Your task to perform on an android device: turn off location history Image 0: 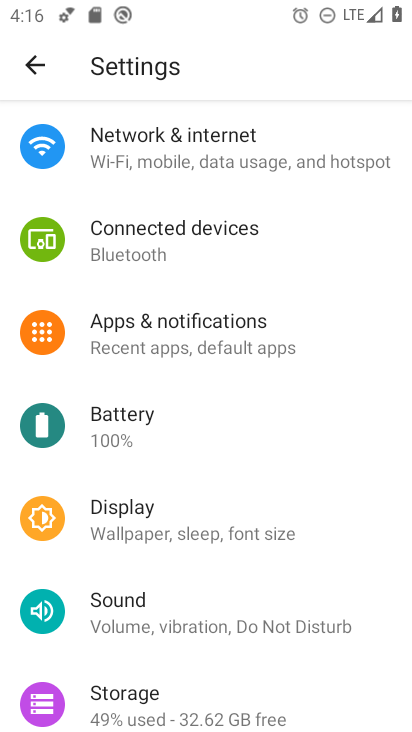
Step 0: drag from (324, 665) to (308, 312)
Your task to perform on an android device: turn off location history Image 1: 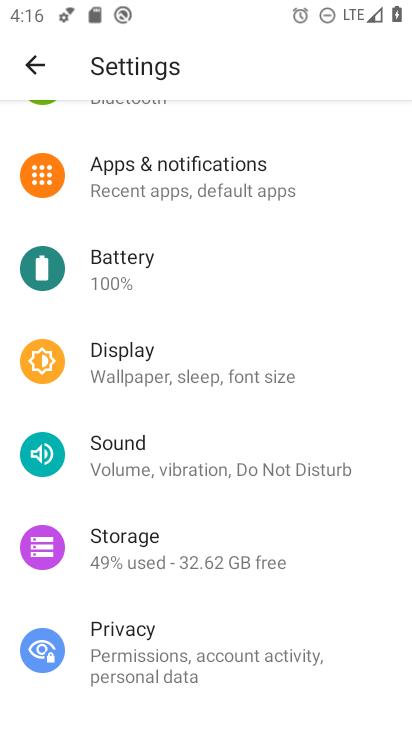
Step 1: drag from (322, 657) to (324, 402)
Your task to perform on an android device: turn off location history Image 2: 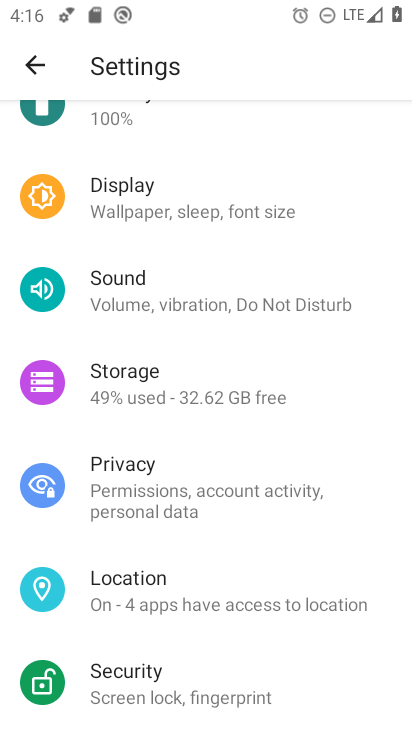
Step 2: click (100, 582)
Your task to perform on an android device: turn off location history Image 3: 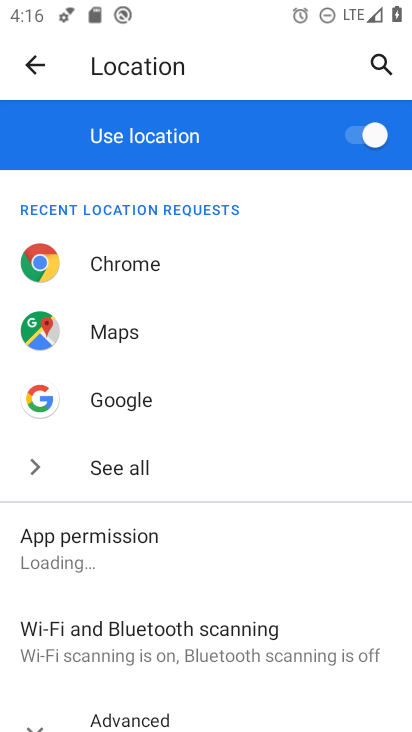
Step 3: drag from (316, 565) to (313, 276)
Your task to perform on an android device: turn off location history Image 4: 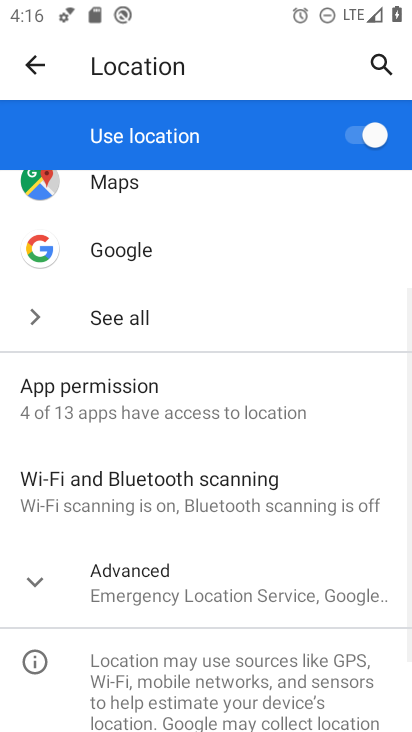
Step 4: drag from (340, 648) to (332, 384)
Your task to perform on an android device: turn off location history Image 5: 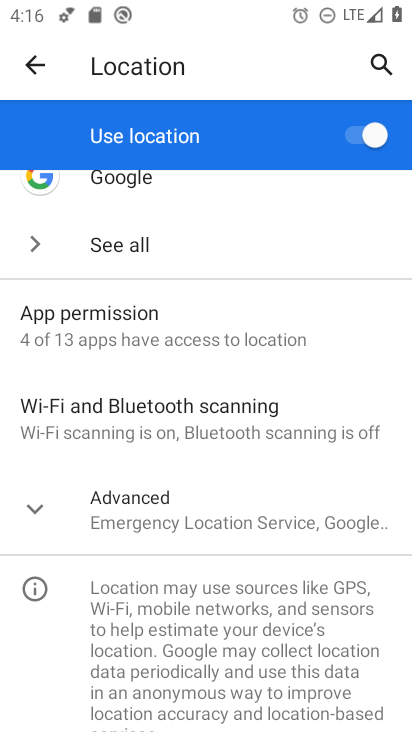
Step 5: drag from (334, 646) to (321, 456)
Your task to perform on an android device: turn off location history Image 6: 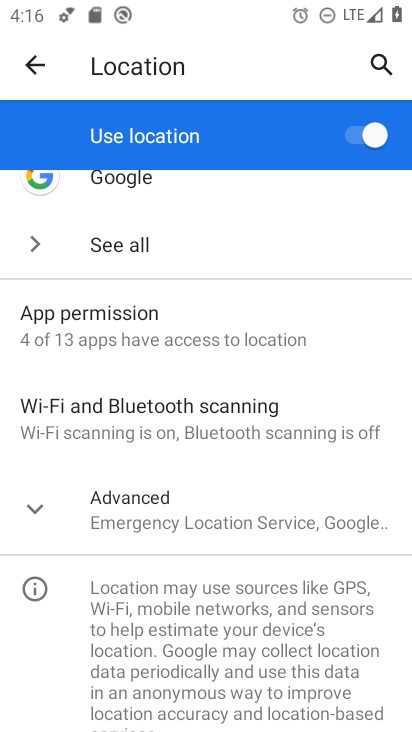
Step 6: click (34, 503)
Your task to perform on an android device: turn off location history Image 7: 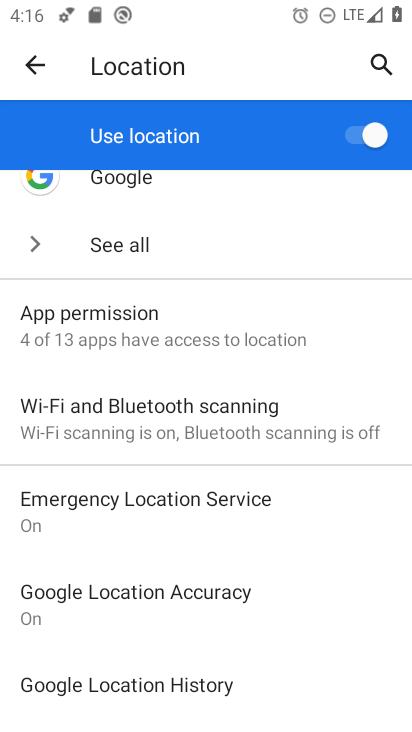
Step 7: drag from (313, 682) to (294, 496)
Your task to perform on an android device: turn off location history Image 8: 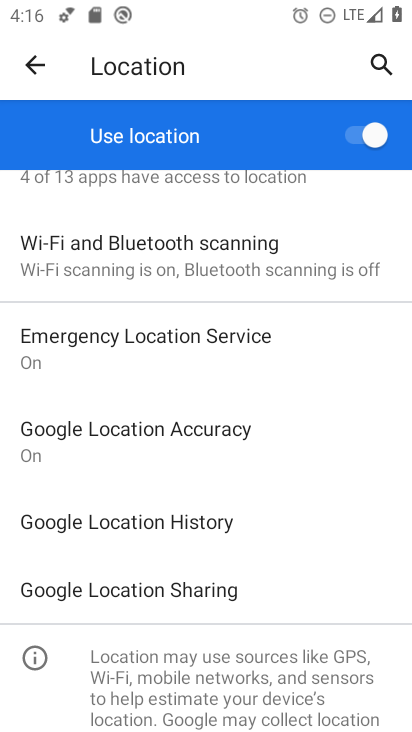
Step 8: click (138, 526)
Your task to perform on an android device: turn off location history Image 9: 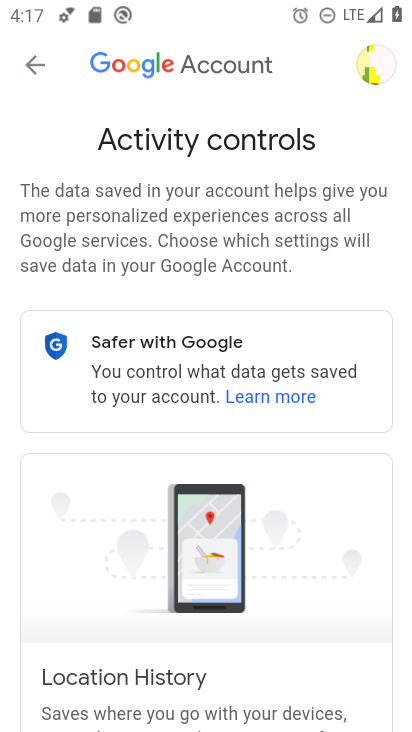
Step 9: drag from (334, 564) to (305, 239)
Your task to perform on an android device: turn off location history Image 10: 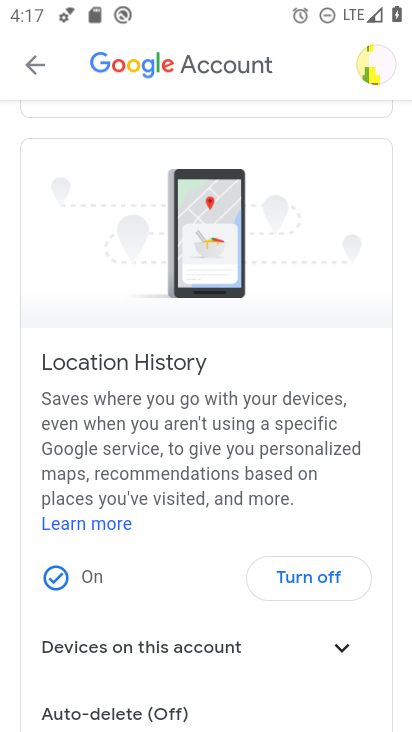
Step 10: click (354, 570)
Your task to perform on an android device: turn off location history Image 11: 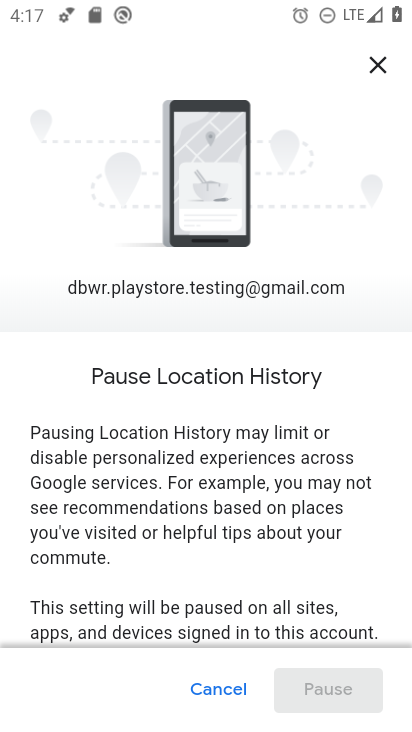
Step 11: drag from (237, 623) to (238, 285)
Your task to perform on an android device: turn off location history Image 12: 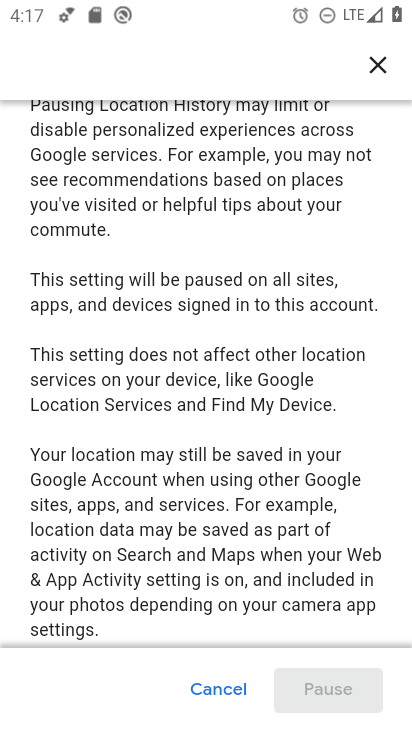
Step 12: drag from (255, 555) to (285, 158)
Your task to perform on an android device: turn off location history Image 13: 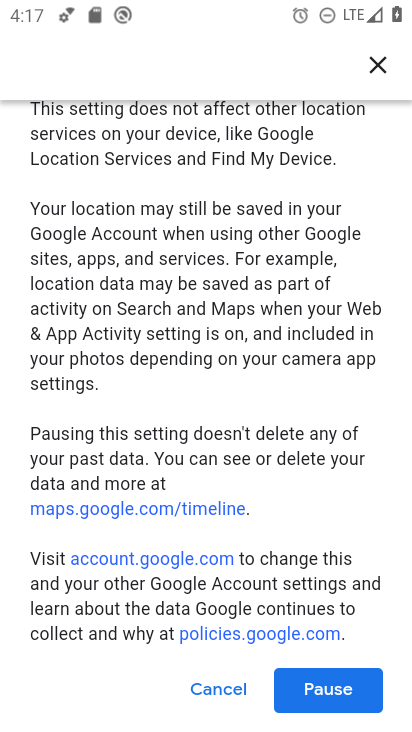
Step 13: drag from (279, 577) to (287, 270)
Your task to perform on an android device: turn off location history Image 14: 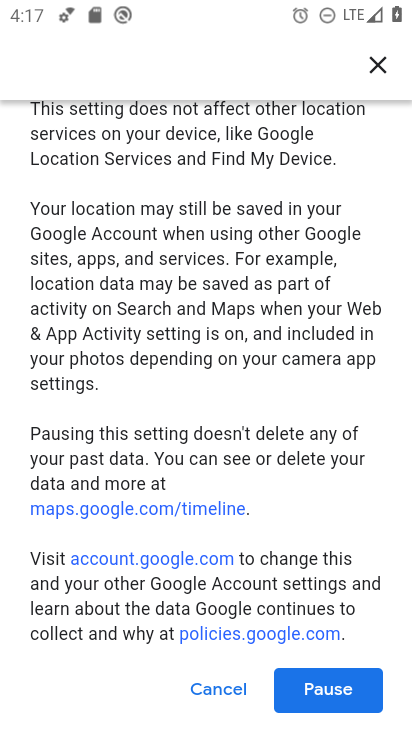
Step 14: drag from (272, 603) to (304, 294)
Your task to perform on an android device: turn off location history Image 15: 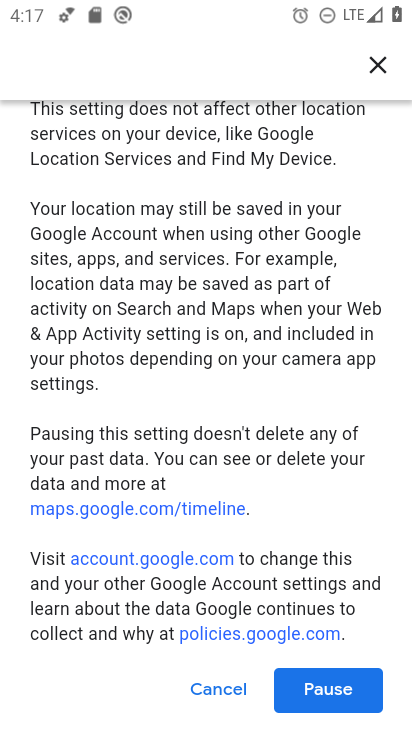
Step 15: click (334, 688)
Your task to perform on an android device: turn off location history Image 16: 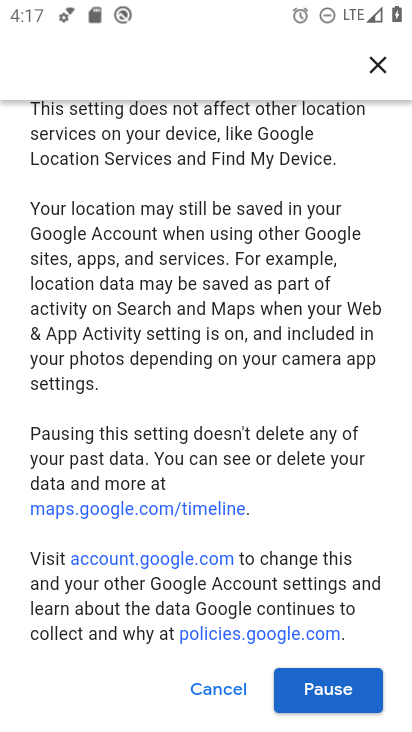
Step 16: click (299, 684)
Your task to perform on an android device: turn off location history Image 17: 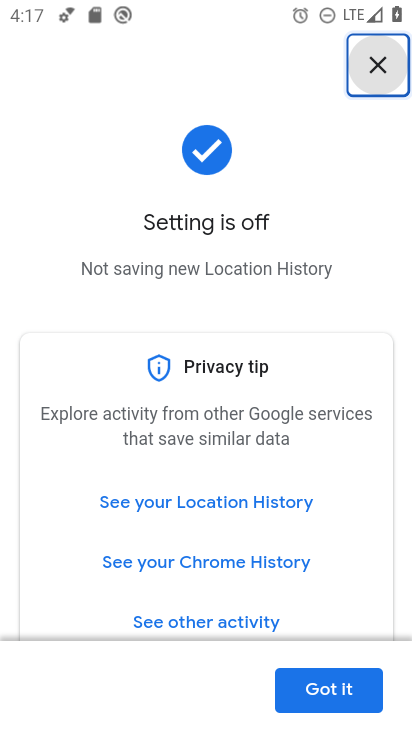
Step 17: click (327, 678)
Your task to perform on an android device: turn off location history Image 18: 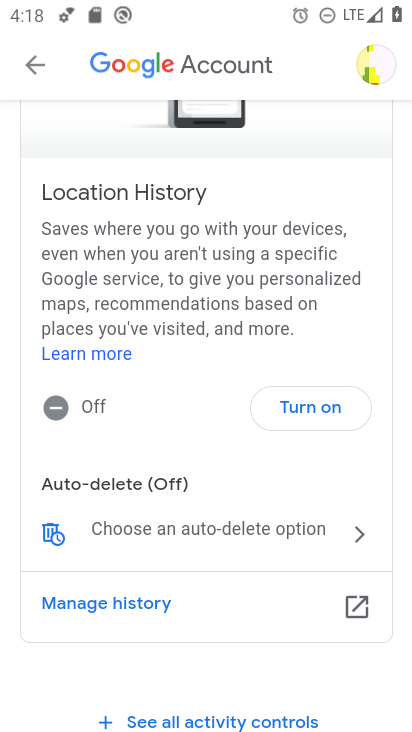
Step 18: task complete